Your task to perform on an android device: Open eBay Image 0: 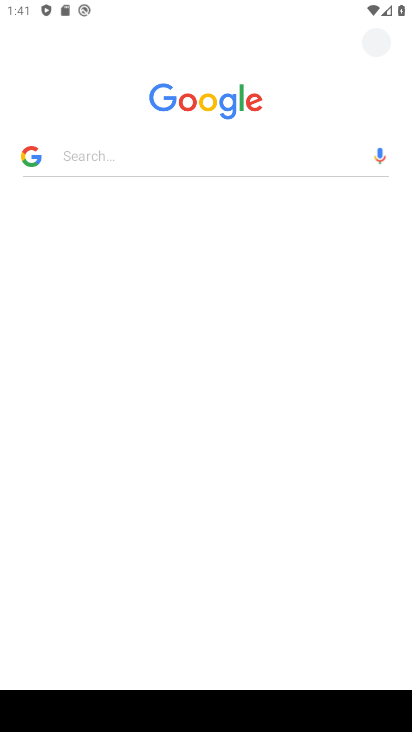
Step 0: press home button
Your task to perform on an android device: Open eBay Image 1: 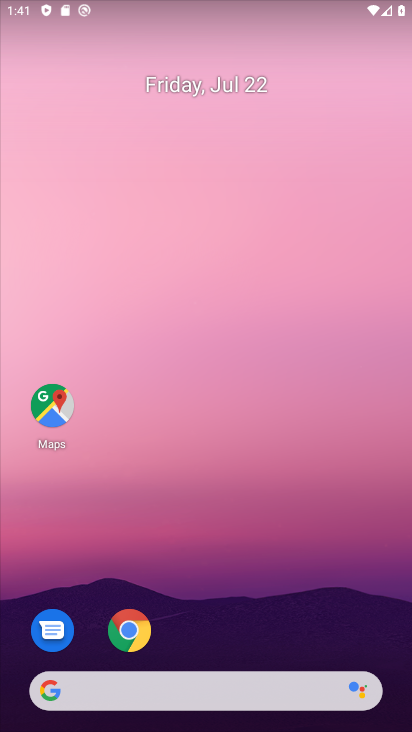
Step 1: drag from (180, 613) to (204, 135)
Your task to perform on an android device: Open eBay Image 2: 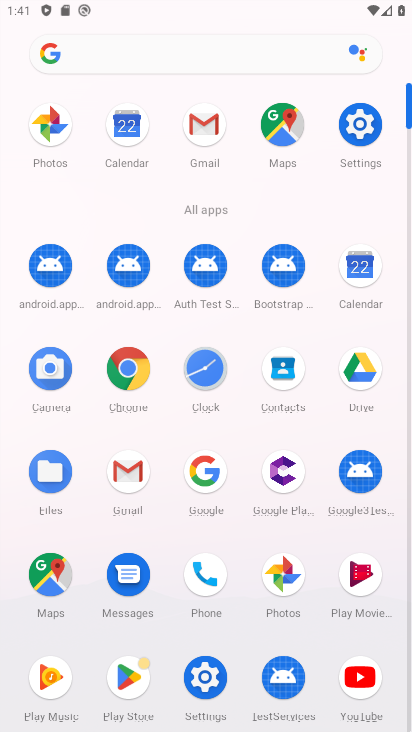
Step 2: click (208, 465)
Your task to perform on an android device: Open eBay Image 3: 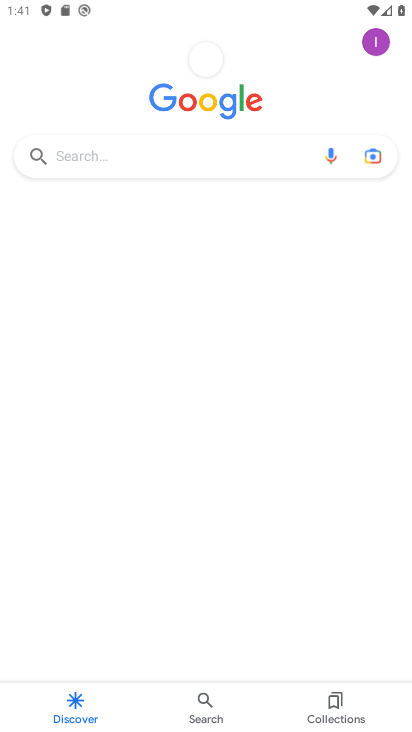
Step 3: click (127, 160)
Your task to perform on an android device: Open eBay Image 4: 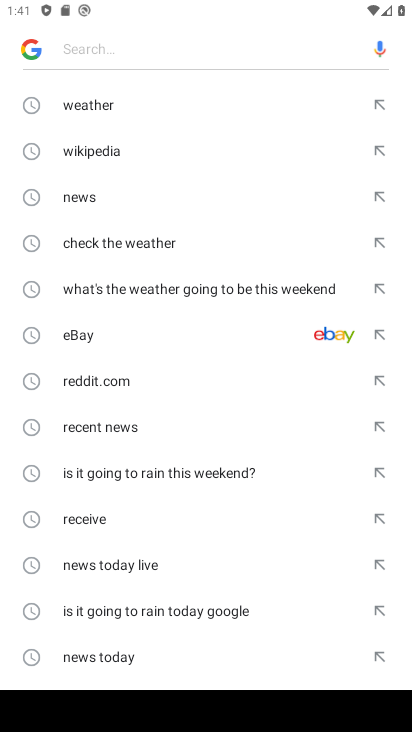
Step 4: click (176, 330)
Your task to perform on an android device: Open eBay Image 5: 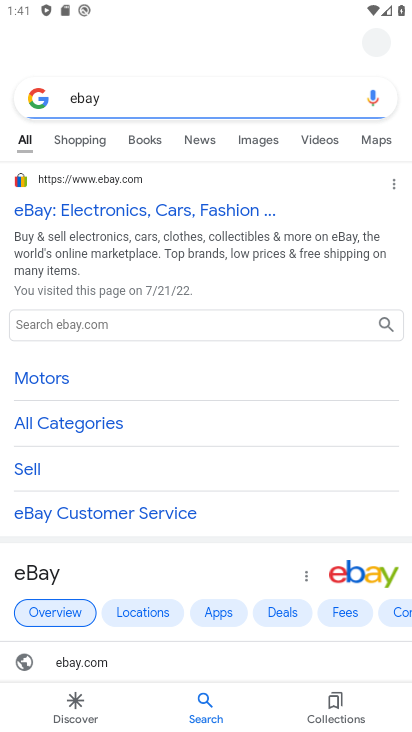
Step 5: task complete